Your task to perform on an android device: Open Amazon Image 0: 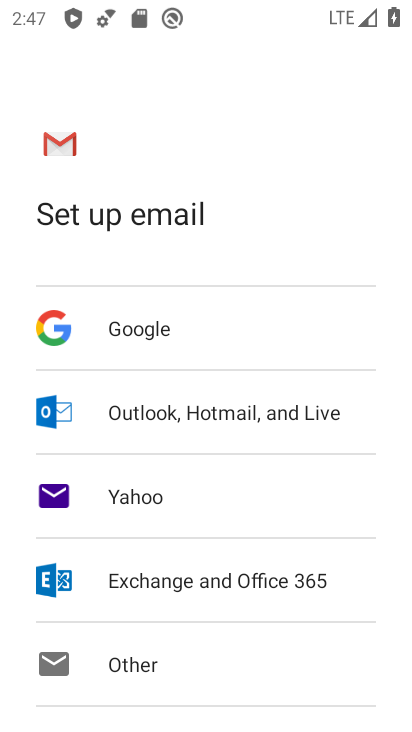
Step 0: press home button
Your task to perform on an android device: Open Amazon Image 1: 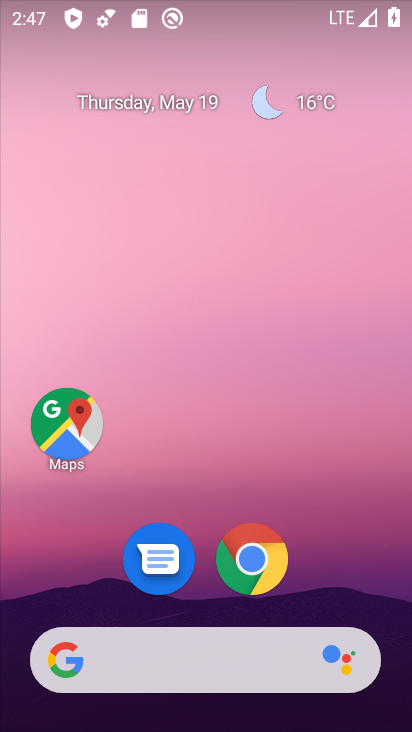
Step 1: click (248, 582)
Your task to perform on an android device: Open Amazon Image 2: 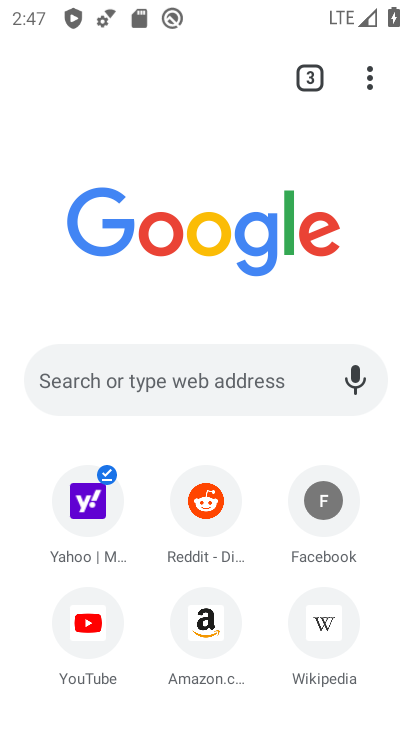
Step 2: click (196, 628)
Your task to perform on an android device: Open Amazon Image 3: 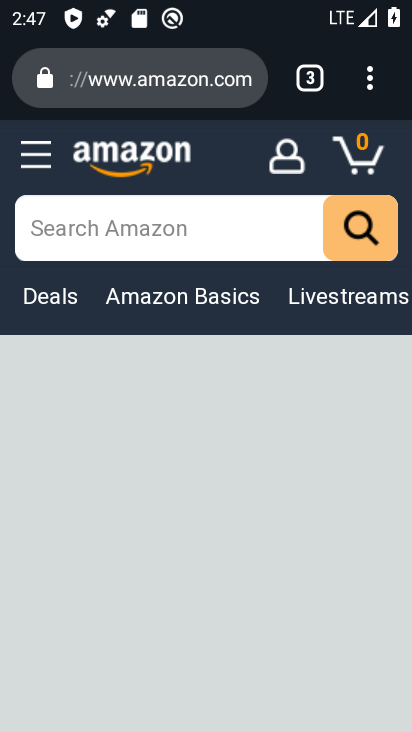
Step 3: task complete